Your task to perform on an android device: toggle wifi Image 0: 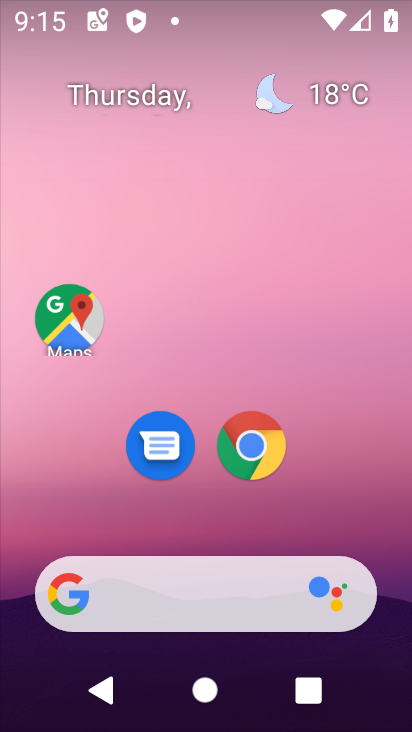
Step 0: drag from (354, 519) to (263, 52)
Your task to perform on an android device: toggle wifi Image 1: 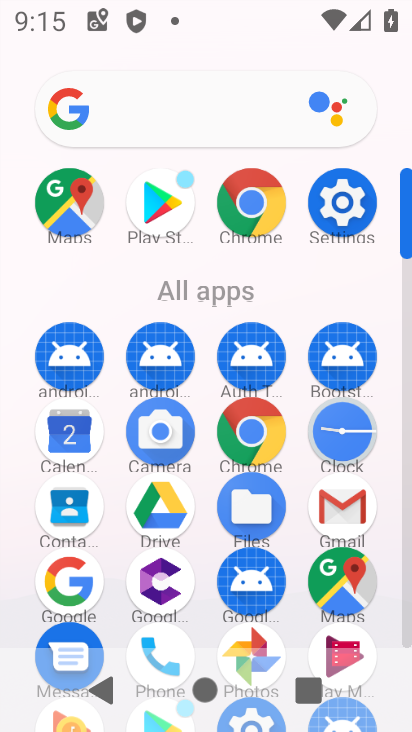
Step 1: click (337, 212)
Your task to perform on an android device: toggle wifi Image 2: 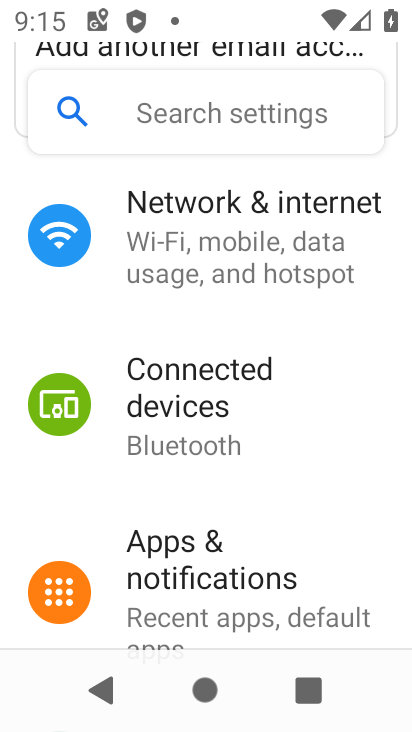
Step 2: click (277, 261)
Your task to perform on an android device: toggle wifi Image 3: 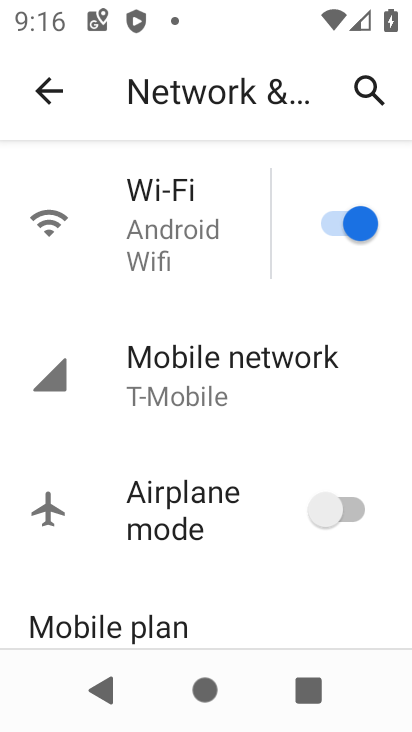
Step 3: click (335, 200)
Your task to perform on an android device: toggle wifi Image 4: 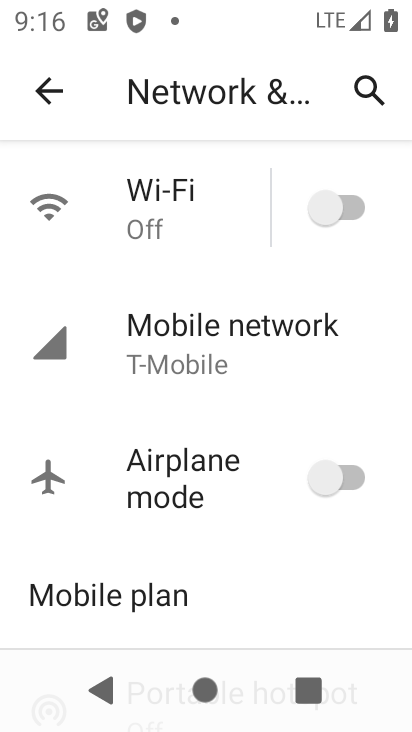
Step 4: task complete